Your task to perform on an android device: Open settings on Google Maps Image 0: 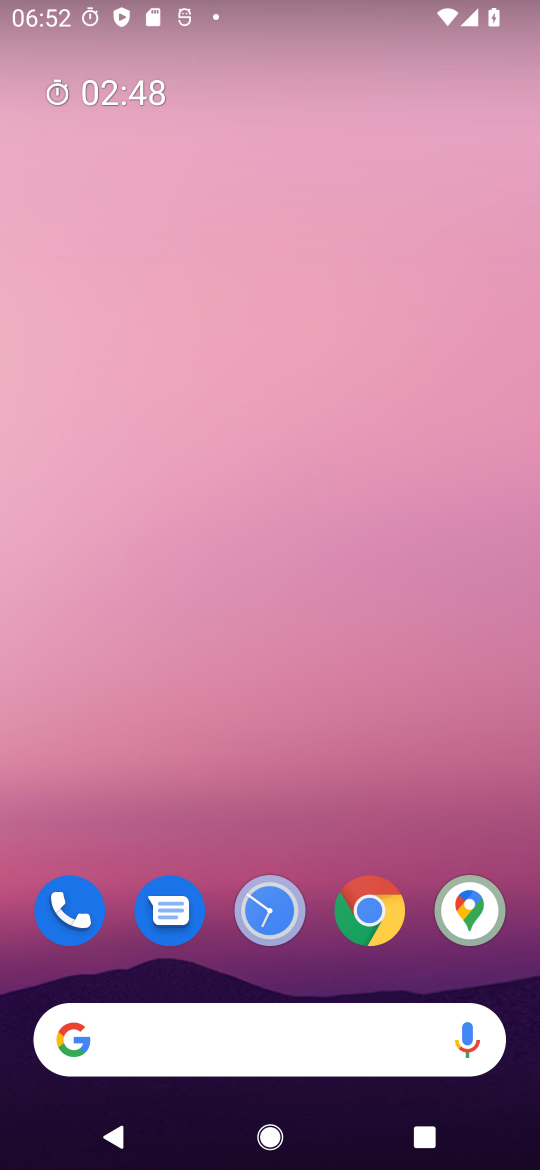
Step 0: drag from (127, 1058) to (177, 78)
Your task to perform on an android device: Open settings on Google Maps Image 1: 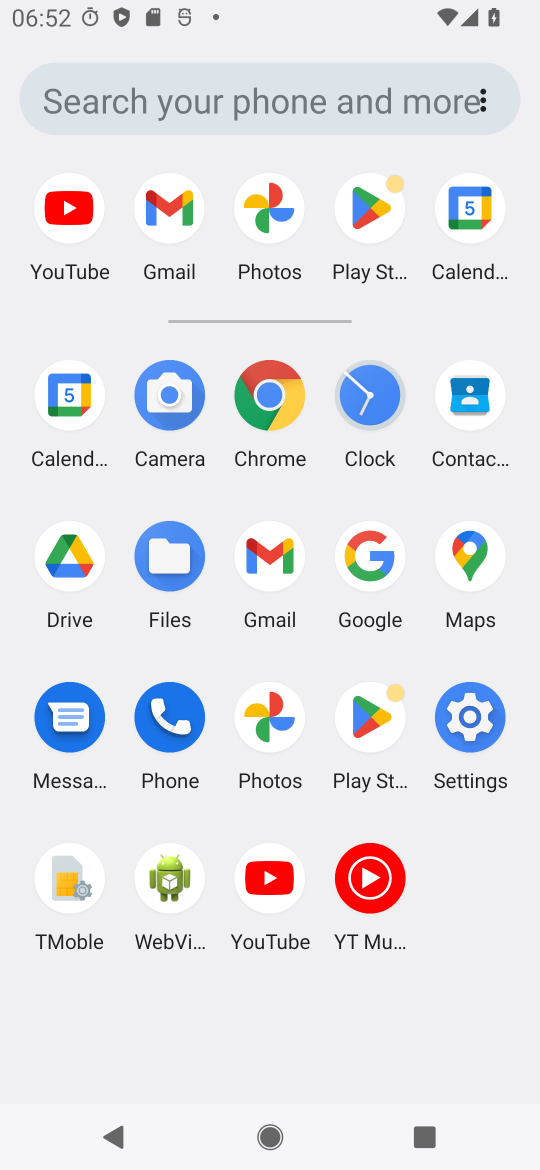
Step 1: click (465, 530)
Your task to perform on an android device: Open settings on Google Maps Image 2: 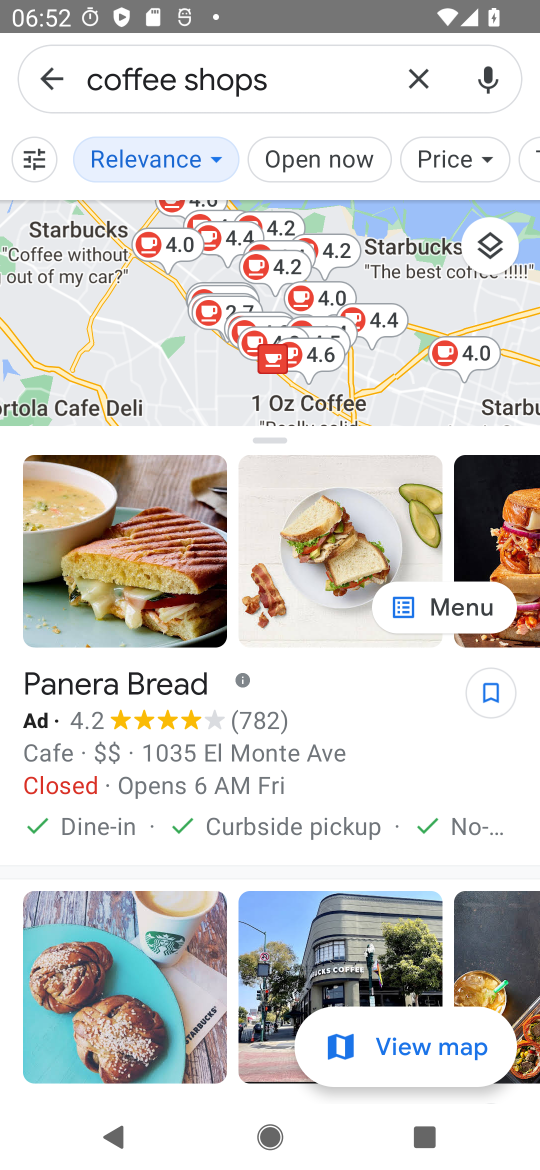
Step 2: click (418, 76)
Your task to perform on an android device: Open settings on Google Maps Image 3: 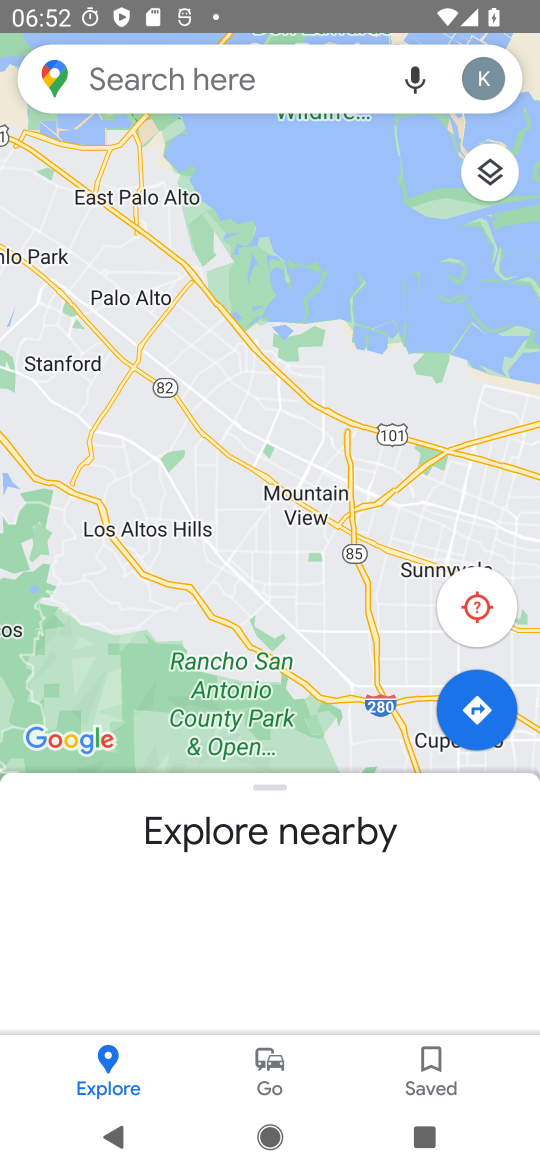
Step 3: click (478, 61)
Your task to perform on an android device: Open settings on Google Maps Image 4: 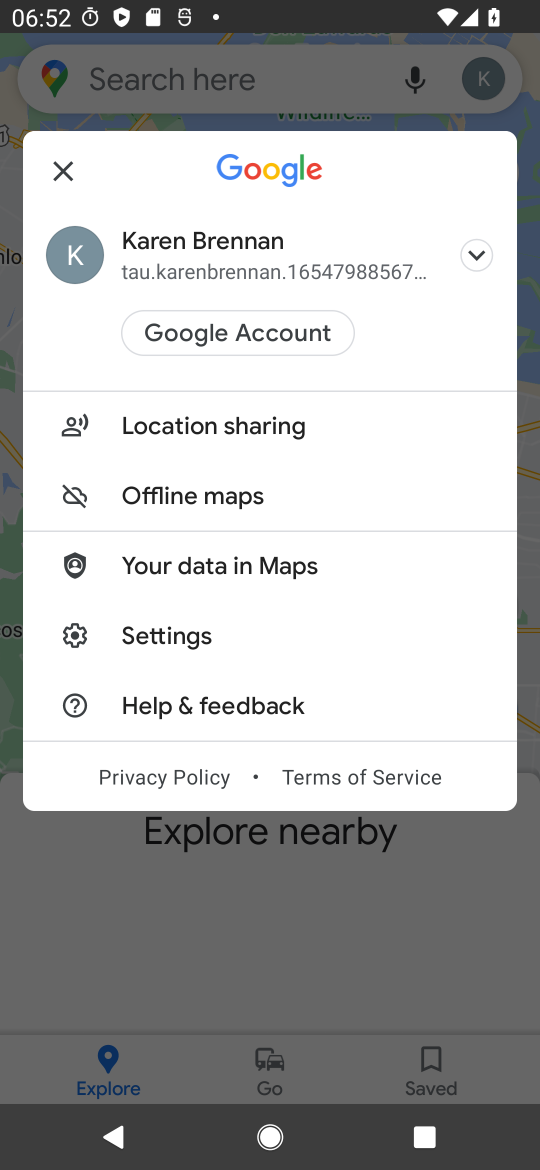
Step 4: click (160, 624)
Your task to perform on an android device: Open settings on Google Maps Image 5: 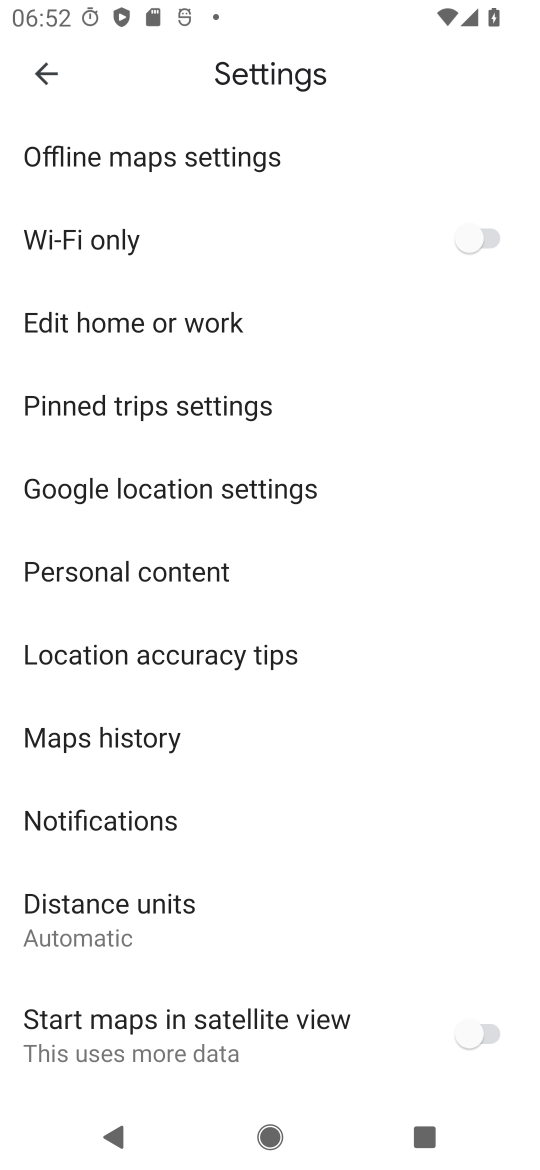
Step 5: task complete